Your task to perform on an android device: open a bookmark in the chrome app Image 0: 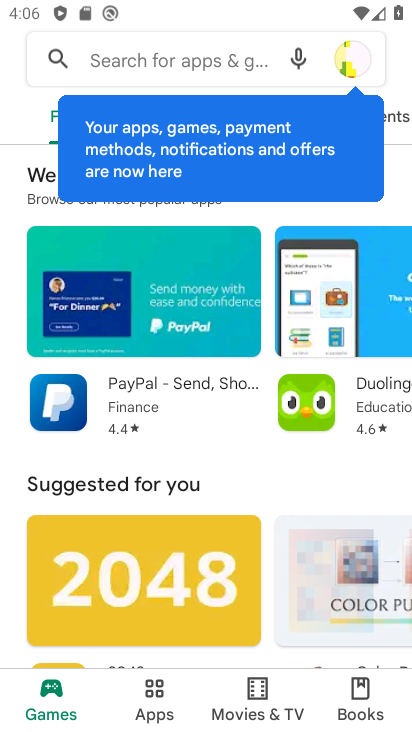
Step 0: press home button
Your task to perform on an android device: open a bookmark in the chrome app Image 1: 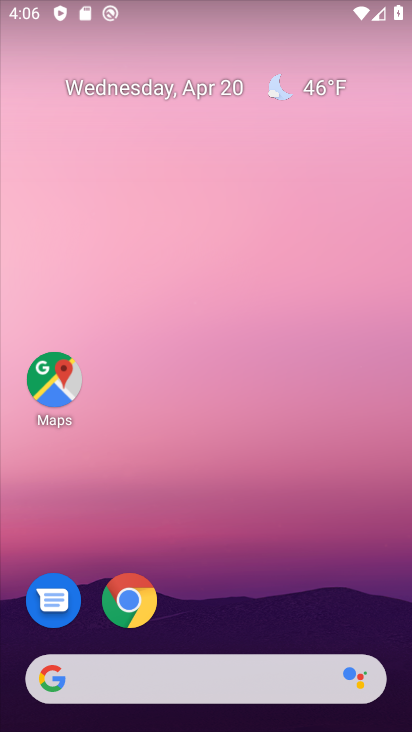
Step 1: click (126, 598)
Your task to perform on an android device: open a bookmark in the chrome app Image 2: 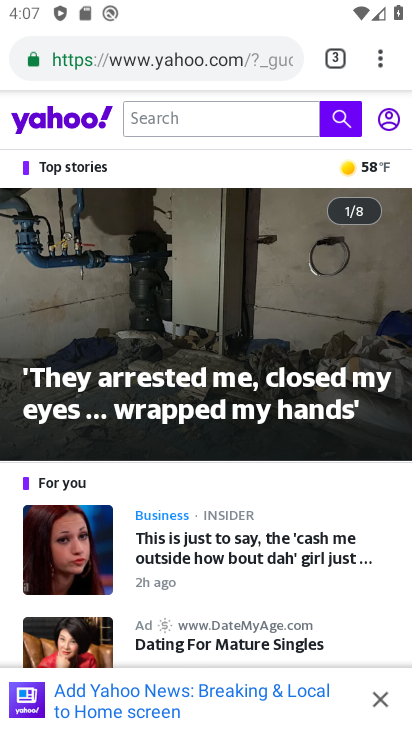
Step 2: click (388, 57)
Your task to perform on an android device: open a bookmark in the chrome app Image 3: 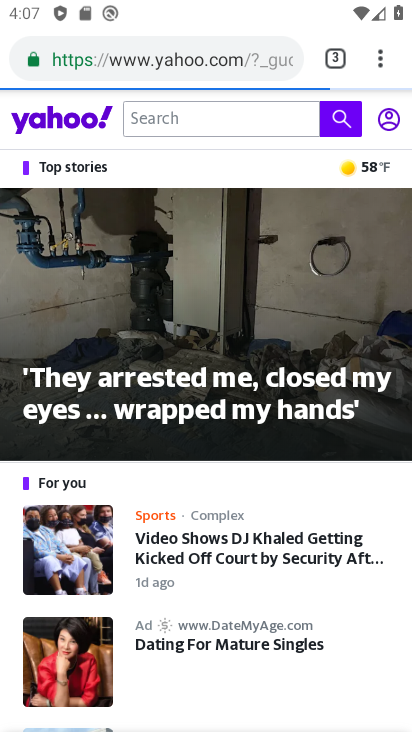
Step 3: click (373, 58)
Your task to perform on an android device: open a bookmark in the chrome app Image 4: 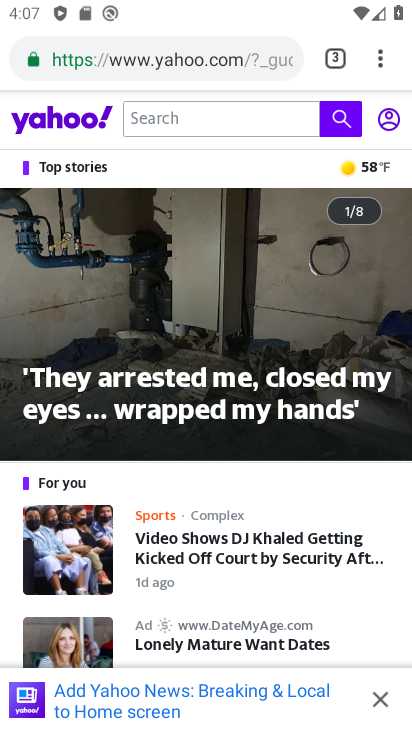
Step 4: click (381, 54)
Your task to perform on an android device: open a bookmark in the chrome app Image 5: 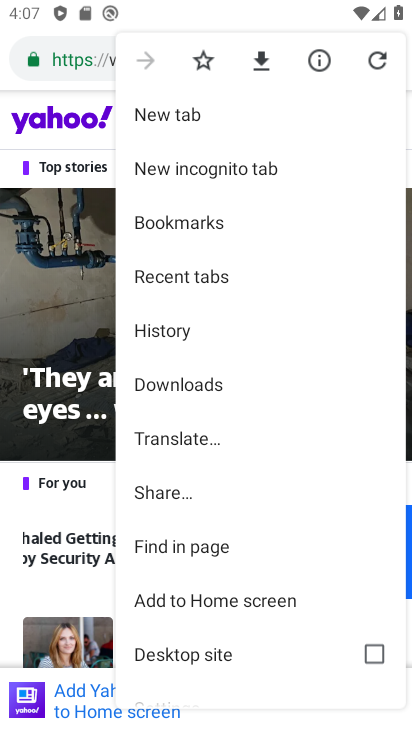
Step 5: click (204, 220)
Your task to perform on an android device: open a bookmark in the chrome app Image 6: 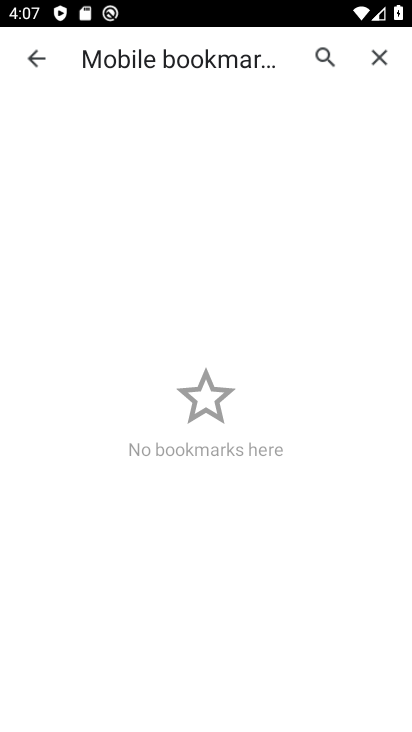
Step 6: task complete